Your task to perform on an android device: turn on notifications settings in the gmail app Image 0: 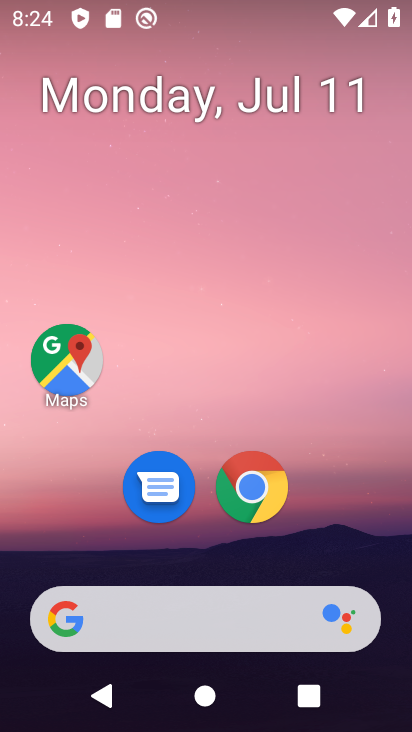
Step 0: drag from (143, 560) to (287, 11)
Your task to perform on an android device: turn on notifications settings in the gmail app Image 1: 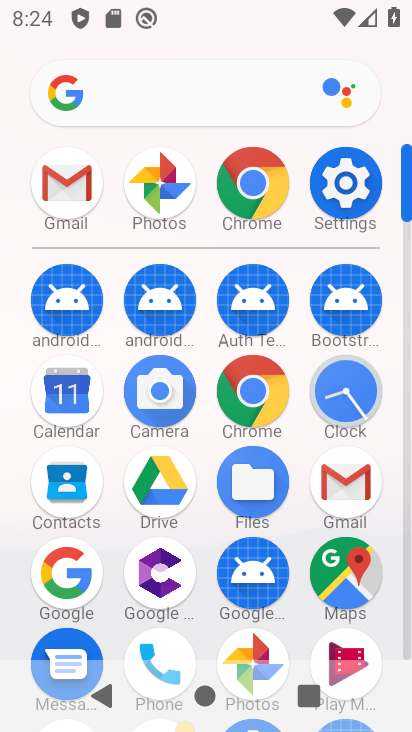
Step 1: click (82, 180)
Your task to perform on an android device: turn on notifications settings in the gmail app Image 2: 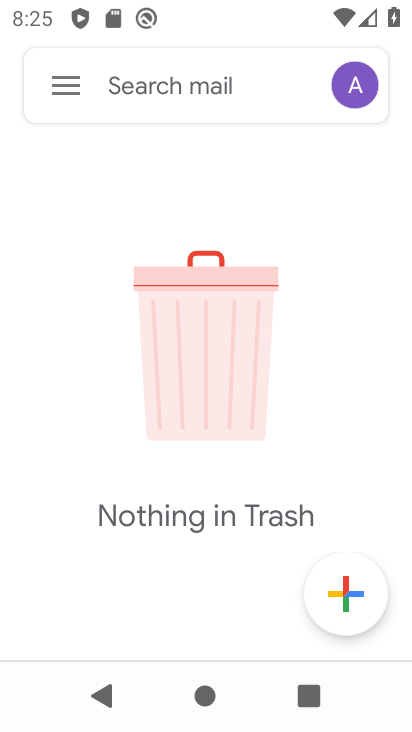
Step 2: click (59, 79)
Your task to perform on an android device: turn on notifications settings in the gmail app Image 3: 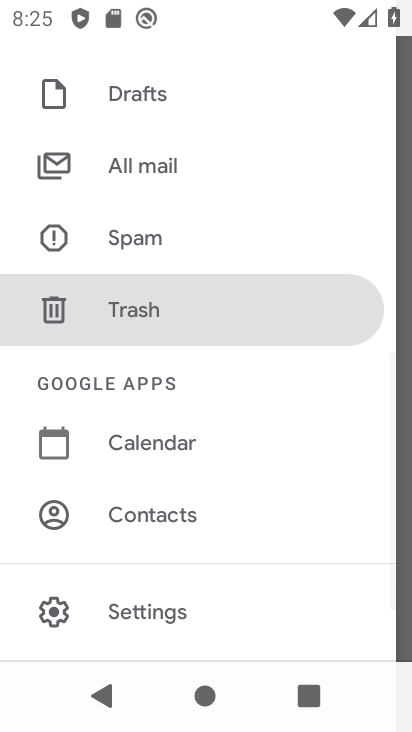
Step 3: click (162, 590)
Your task to perform on an android device: turn on notifications settings in the gmail app Image 4: 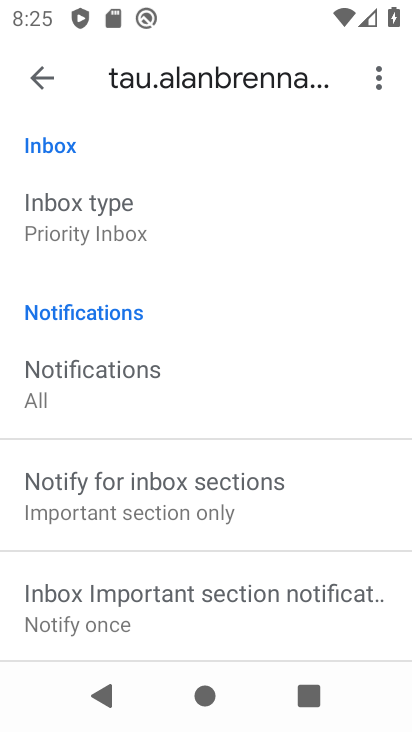
Step 4: drag from (106, 628) to (209, 306)
Your task to perform on an android device: turn on notifications settings in the gmail app Image 5: 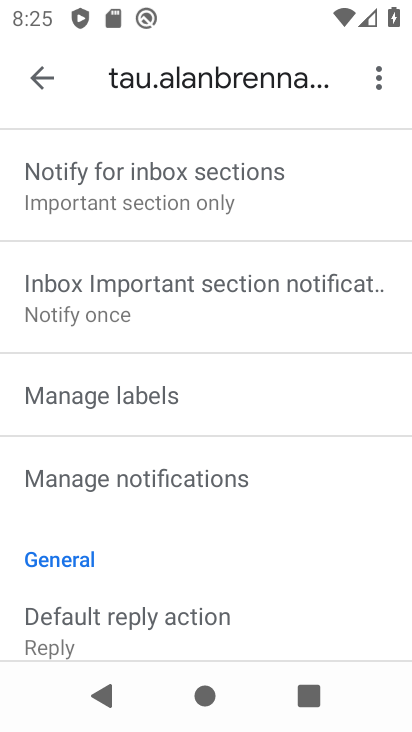
Step 5: click (140, 488)
Your task to perform on an android device: turn on notifications settings in the gmail app Image 6: 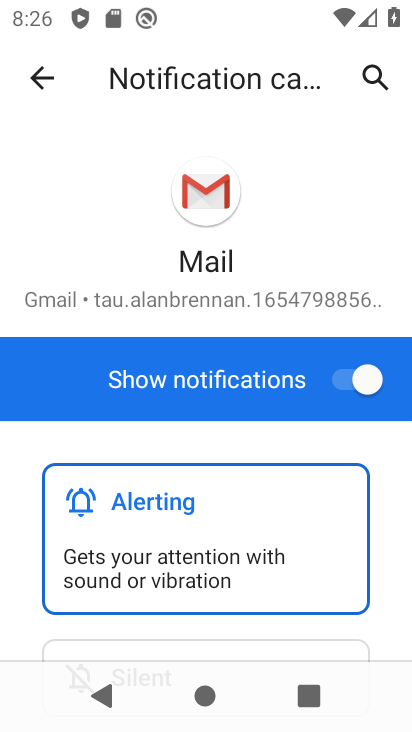
Step 6: task complete